Your task to perform on an android device: delete browsing data in the chrome app Image 0: 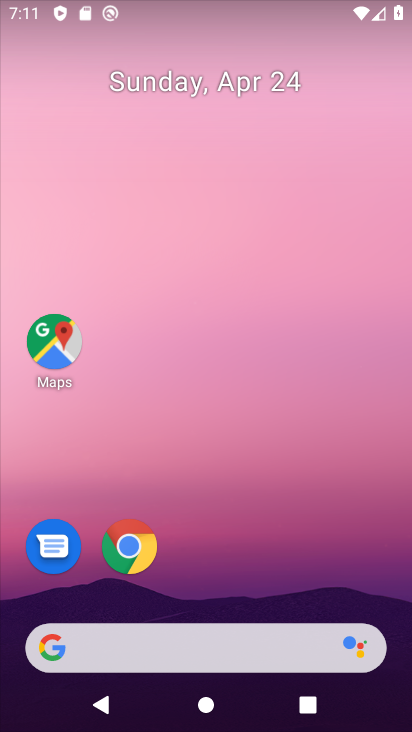
Step 0: click (132, 544)
Your task to perform on an android device: delete browsing data in the chrome app Image 1: 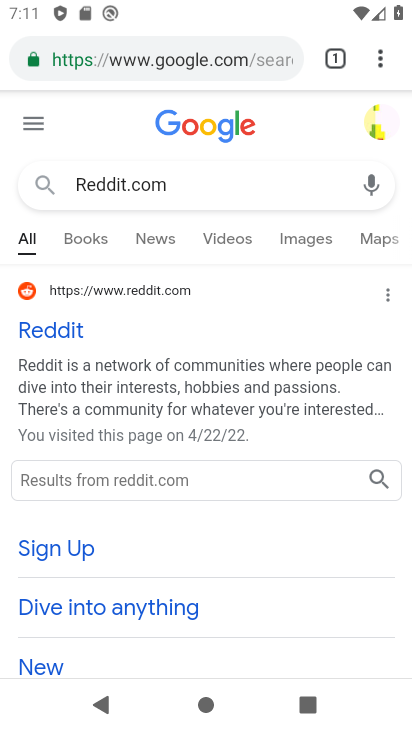
Step 1: click (377, 55)
Your task to perform on an android device: delete browsing data in the chrome app Image 2: 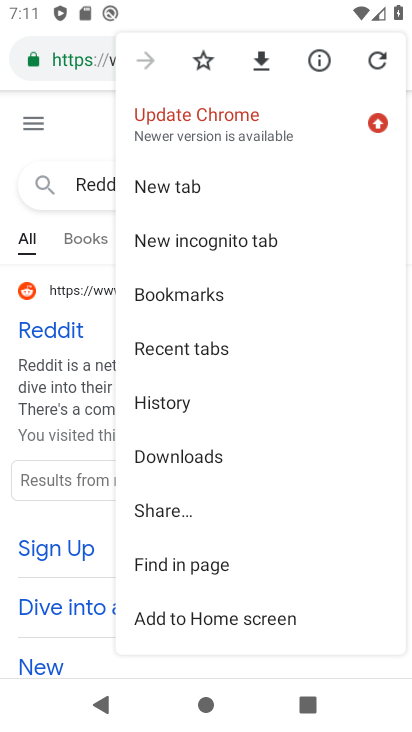
Step 2: click (171, 403)
Your task to perform on an android device: delete browsing data in the chrome app Image 3: 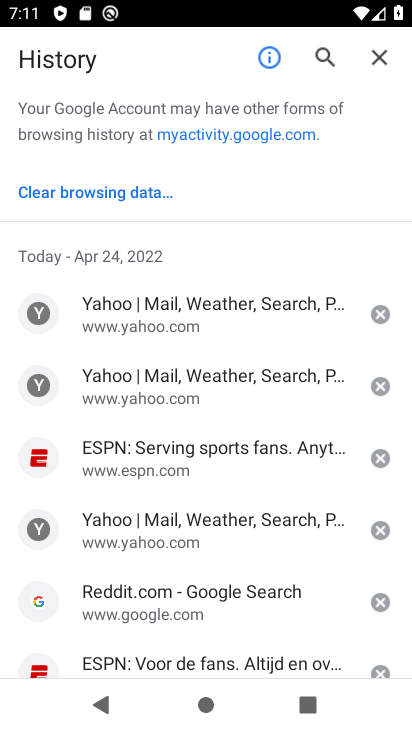
Step 3: click (98, 187)
Your task to perform on an android device: delete browsing data in the chrome app Image 4: 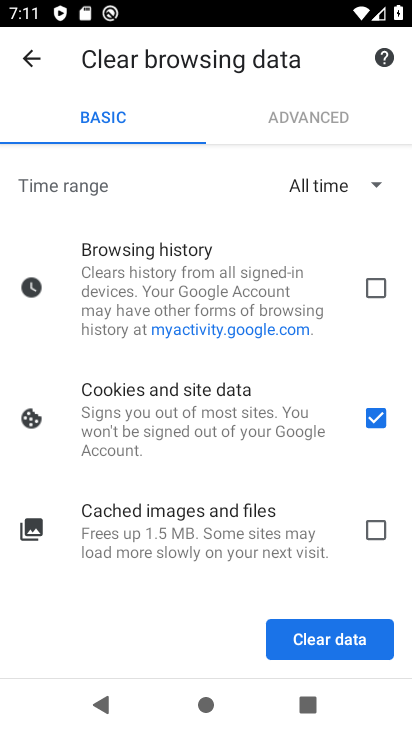
Step 4: click (378, 292)
Your task to perform on an android device: delete browsing data in the chrome app Image 5: 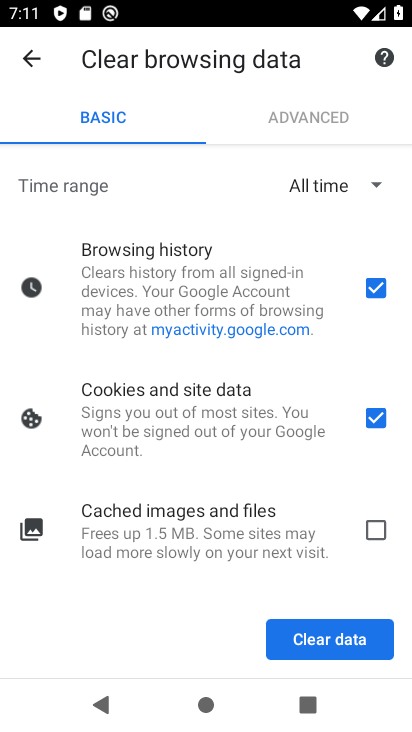
Step 5: click (373, 422)
Your task to perform on an android device: delete browsing data in the chrome app Image 6: 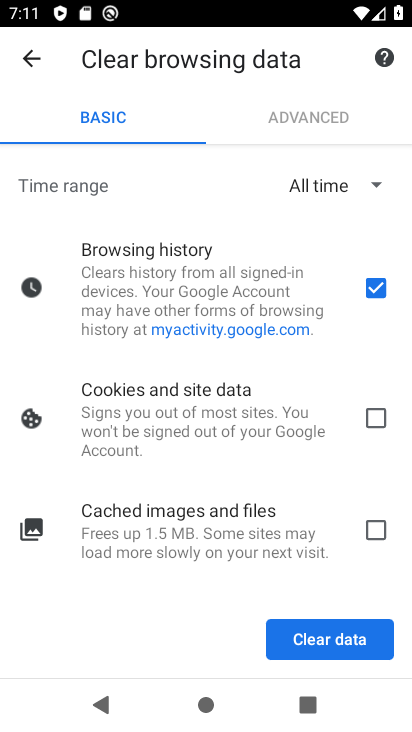
Step 6: click (330, 642)
Your task to perform on an android device: delete browsing data in the chrome app Image 7: 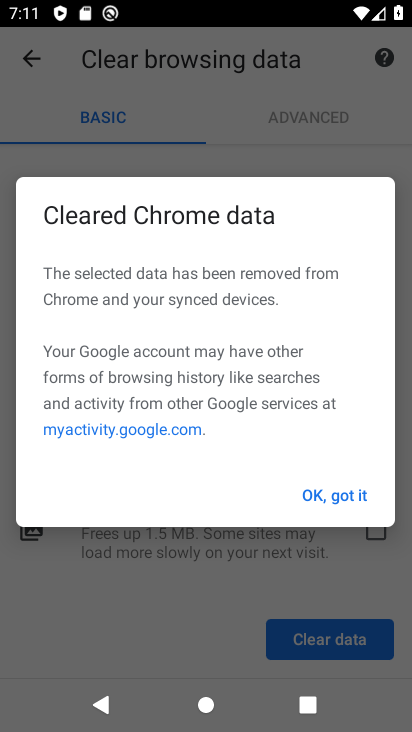
Step 7: click (332, 490)
Your task to perform on an android device: delete browsing data in the chrome app Image 8: 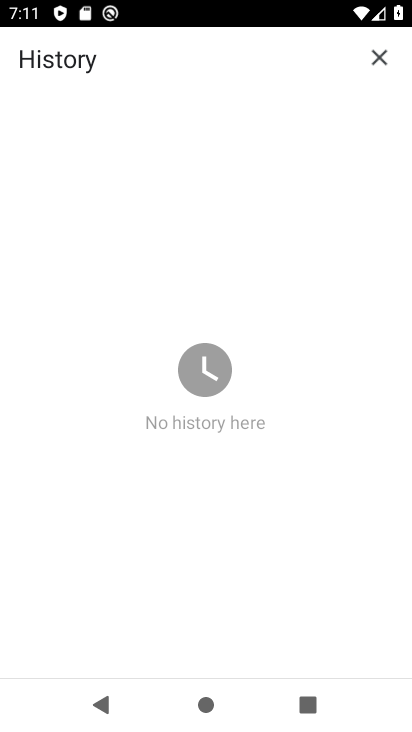
Step 8: task complete